Your task to perform on an android device: see creations saved in the google photos Image 0: 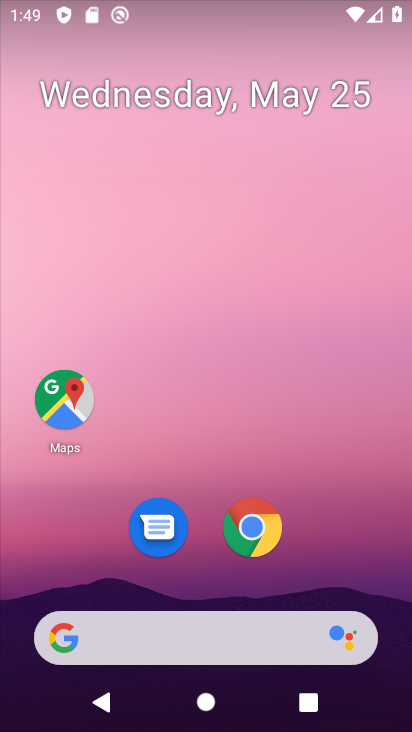
Step 0: drag from (101, 606) to (174, 142)
Your task to perform on an android device: see creations saved in the google photos Image 1: 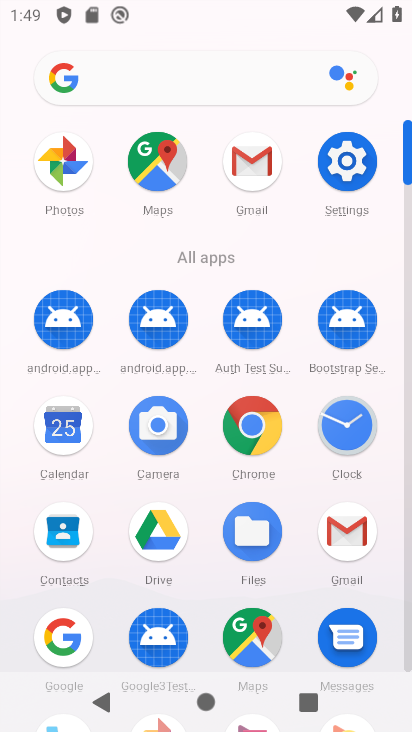
Step 1: drag from (189, 653) to (262, 339)
Your task to perform on an android device: see creations saved in the google photos Image 2: 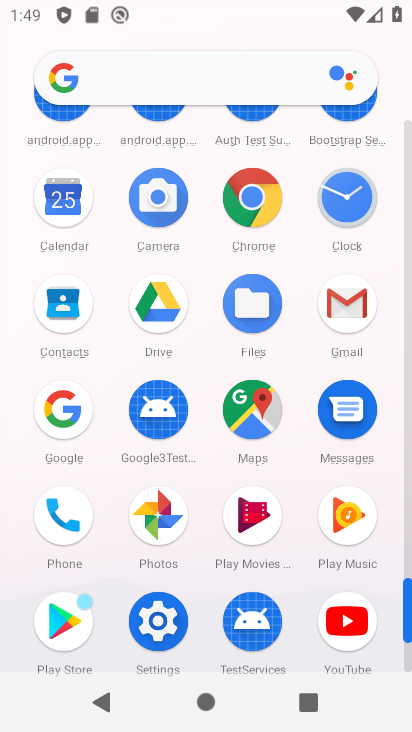
Step 2: click (148, 538)
Your task to perform on an android device: see creations saved in the google photos Image 3: 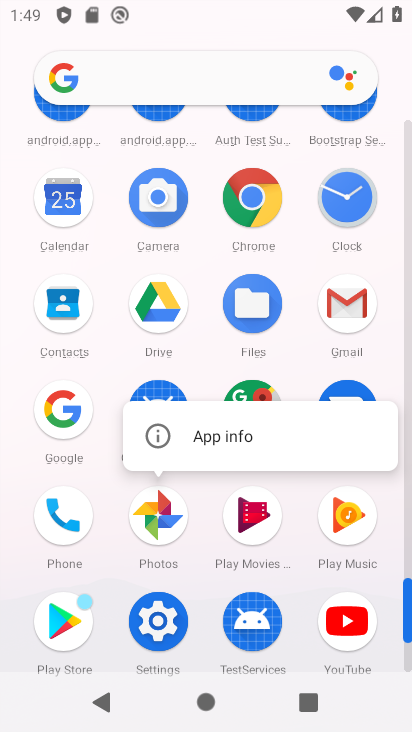
Step 3: click (164, 519)
Your task to perform on an android device: see creations saved in the google photos Image 4: 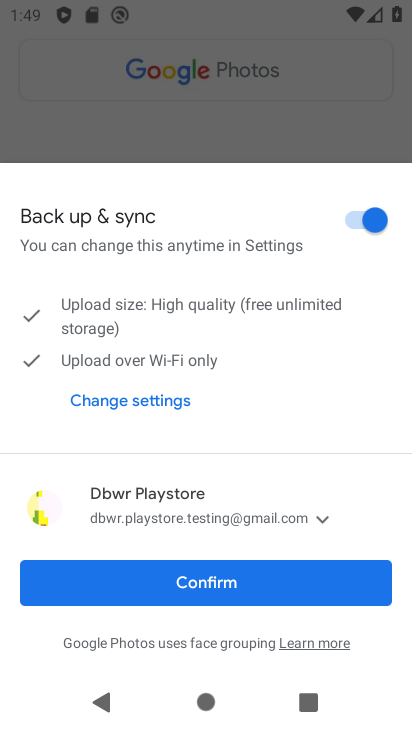
Step 4: click (249, 589)
Your task to perform on an android device: see creations saved in the google photos Image 5: 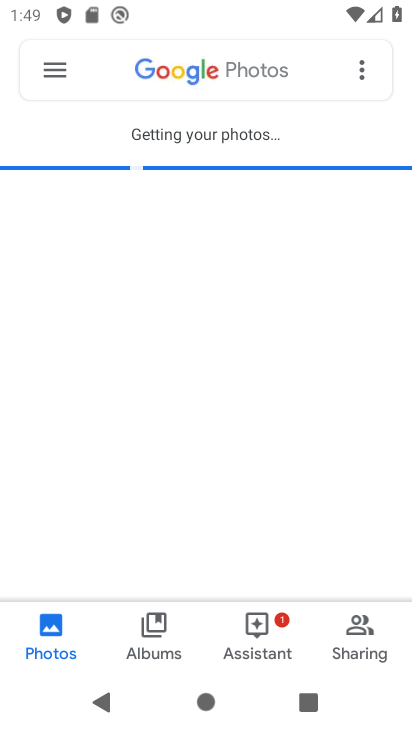
Step 5: click (259, 75)
Your task to perform on an android device: see creations saved in the google photos Image 6: 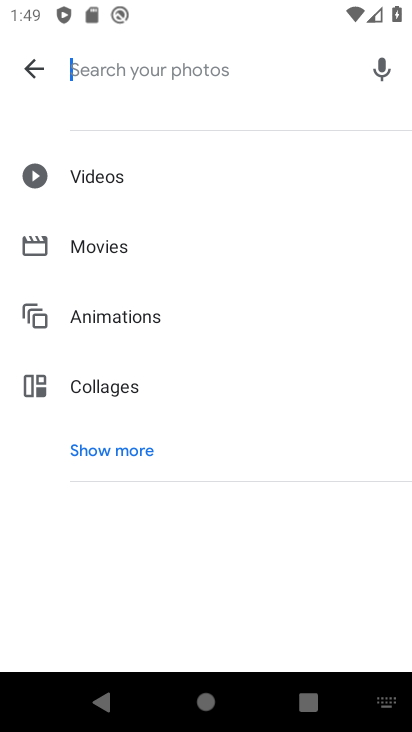
Step 6: click (109, 444)
Your task to perform on an android device: see creations saved in the google photos Image 7: 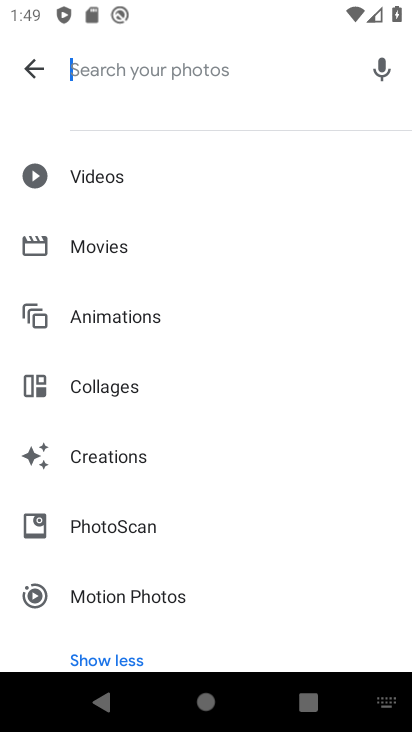
Step 7: click (132, 459)
Your task to perform on an android device: see creations saved in the google photos Image 8: 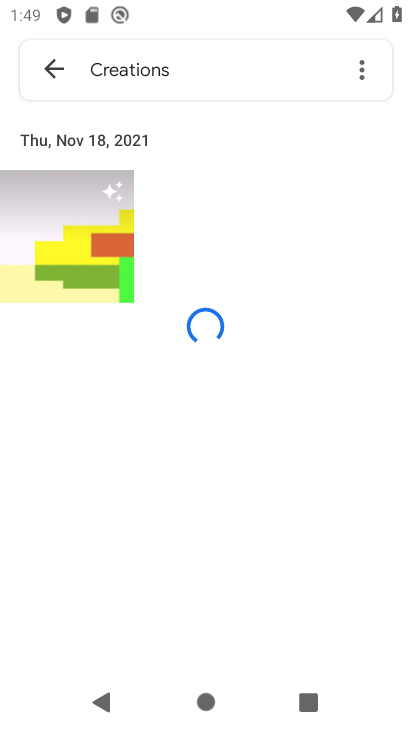
Step 8: task complete